Your task to perform on an android device: What's on my calendar today? Image 0: 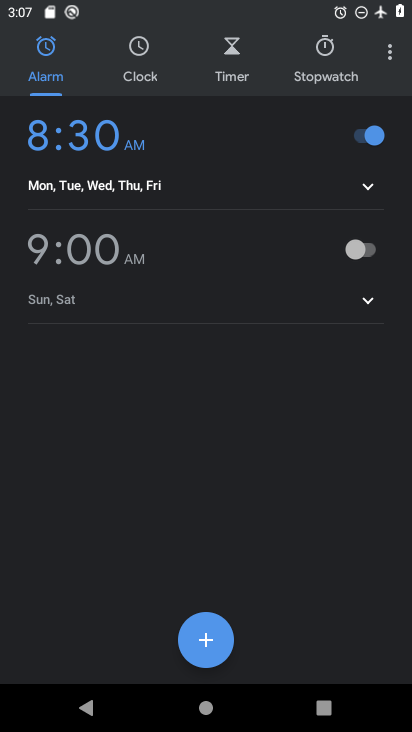
Step 0: press home button
Your task to perform on an android device: What's on my calendar today? Image 1: 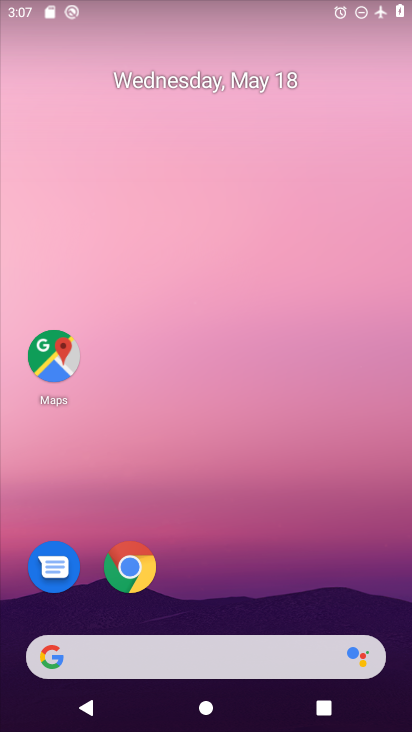
Step 1: drag from (227, 601) to (279, 213)
Your task to perform on an android device: What's on my calendar today? Image 2: 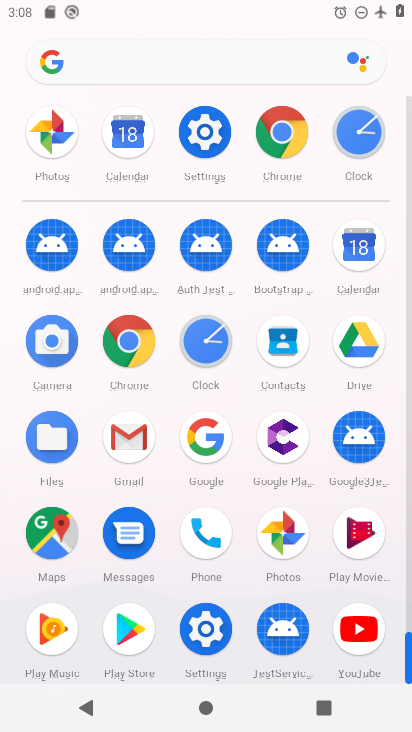
Step 2: click (351, 230)
Your task to perform on an android device: What's on my calendar today? Image 3: 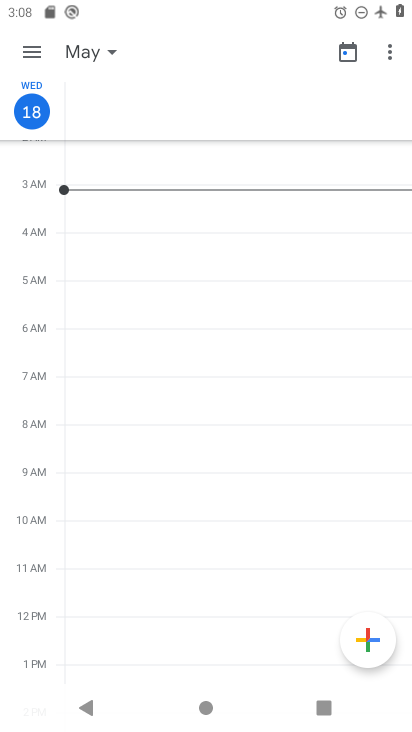
Step 3: click (20, 43)
Your task to perform on an android device: What's on my calendar today? Image 4: 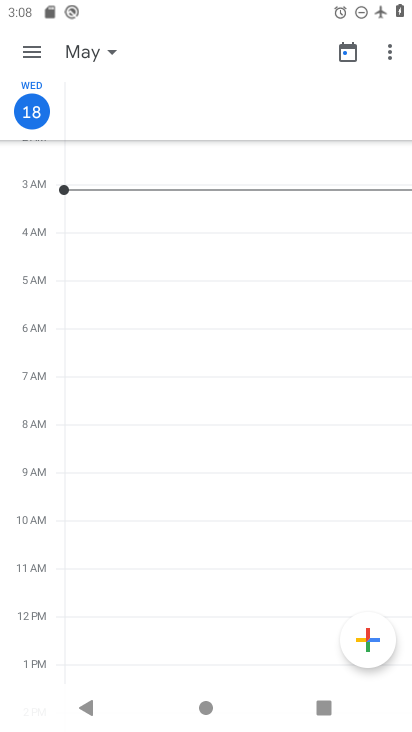
Step 4: click (25, 46)
Your task to perform on an android device: What's on my calendar today? Image 5: 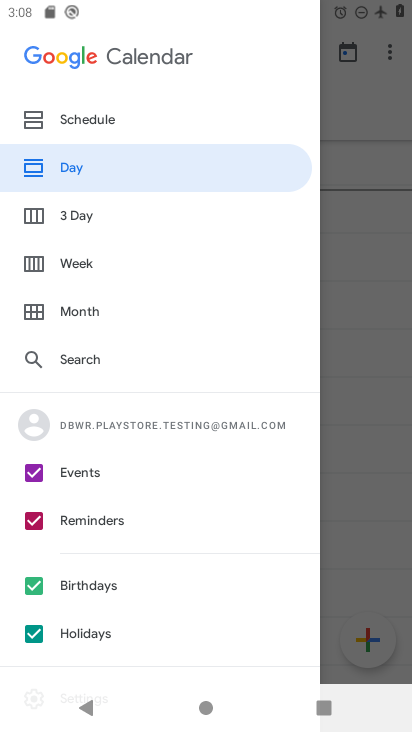
Step 5: click (81, 310)
Your task to perform on an android device: What's on my calendar today? Image 6: 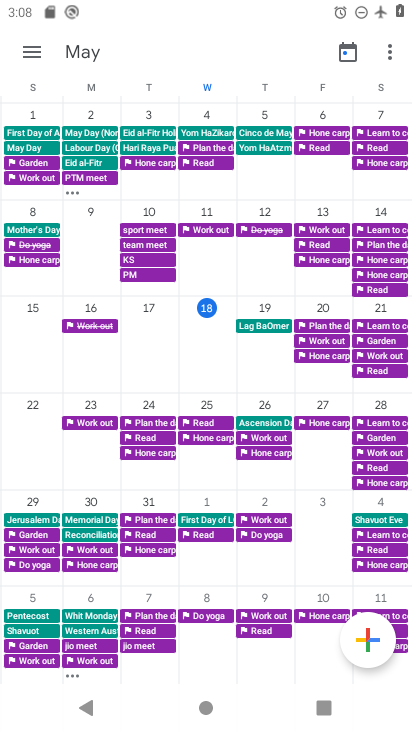
Step 6: click (203, 302)
Your task to perform on an android device: What's on my calendar today? Image 7: 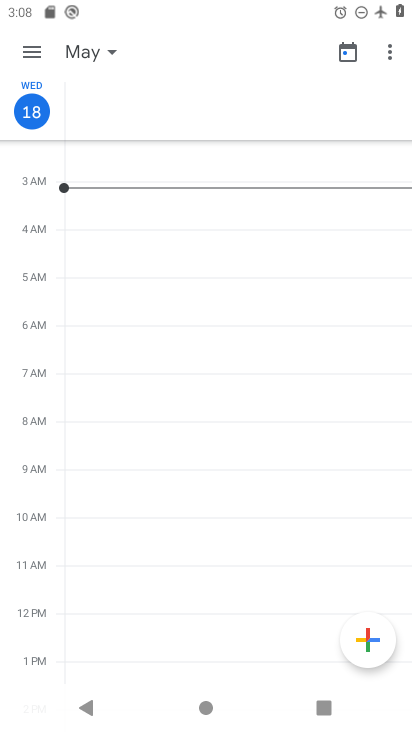
Step 7: task complete